Your task to perform on an android device: visit the assistant section in the google photos Image 0: 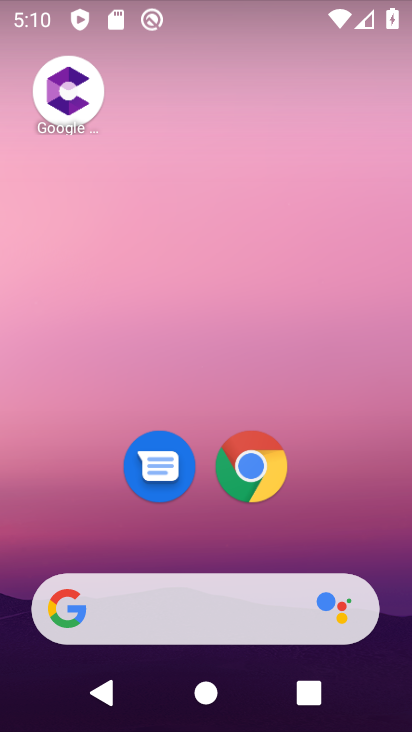
Step 0: drag from (338, 507) to (349, 124)
Your task to perform on an android device: visit the assistant section in the google photos Image 1: 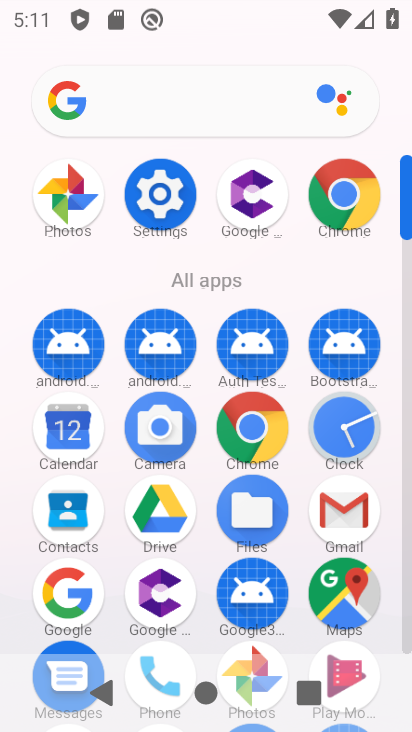
Step 1: click (250, 661)
Your task to perform on an android device: visit the assistant section in the google photos Image 2: 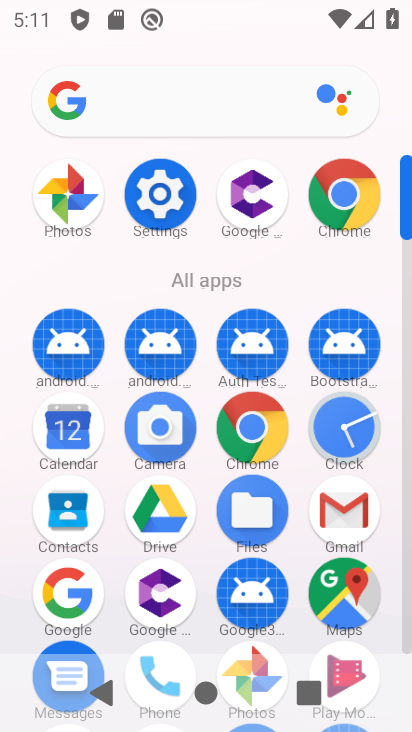
Step 2: drag from (207, 547) to (238, 382)
Your task to perform on an android device: visit the assistant section in the google photos Image 3: 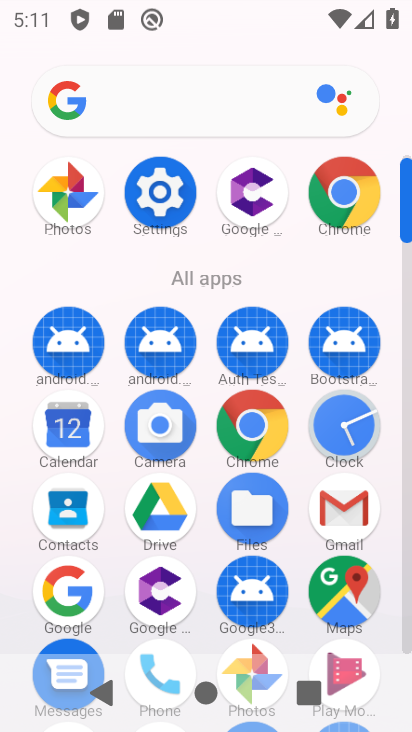
Step 3: drag from (206, 473) to (244, 278)
Your task to perform on an android device: visit the assistant section in the google photos Image 4: 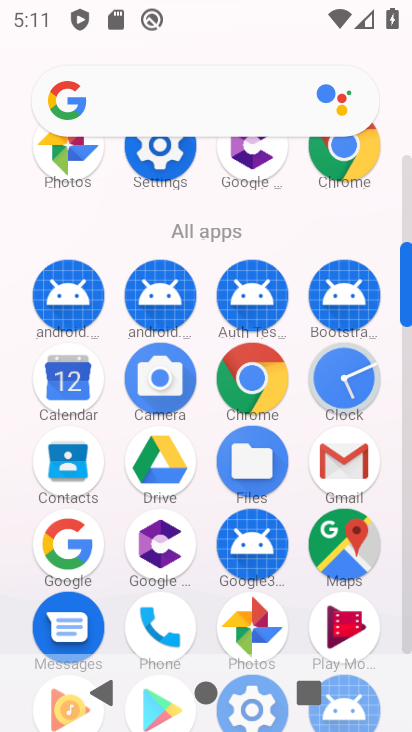
Step 4: click (79, 163)
Your task to perform on an android device: visit the assistant section in the google photos Image 5: 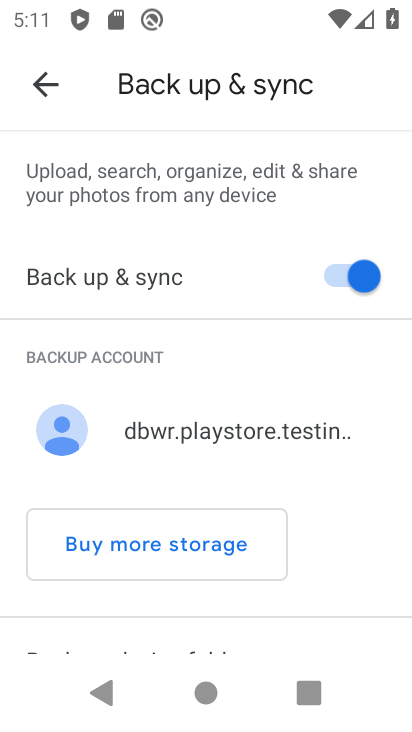
Step 5: press back button
Your task to perform on an android device: visit the assistant section in the google photos Image 6: 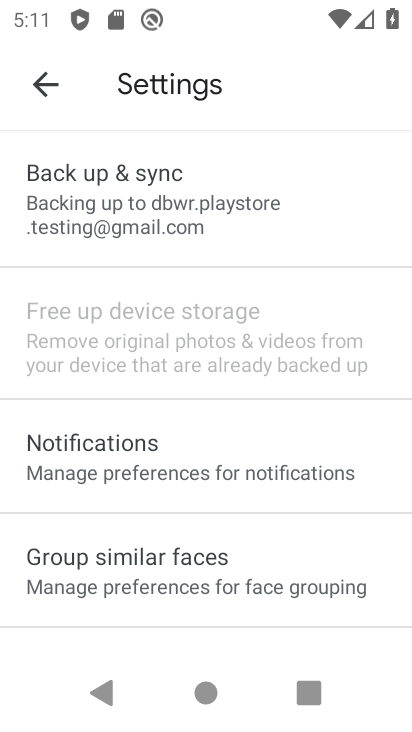
Step 6: press back button
Your task to perform on an android device: visit the assistant section in the google photos Image 7: 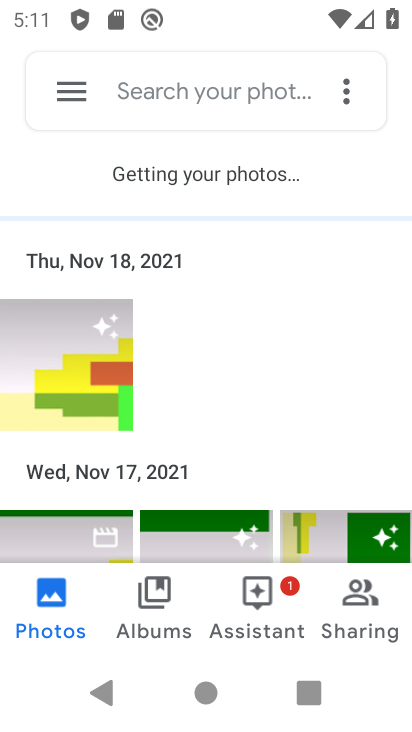
Step 7: click (262, 628)
Your task to perform on an android device: visit the assistant section in the google photos Image 8: 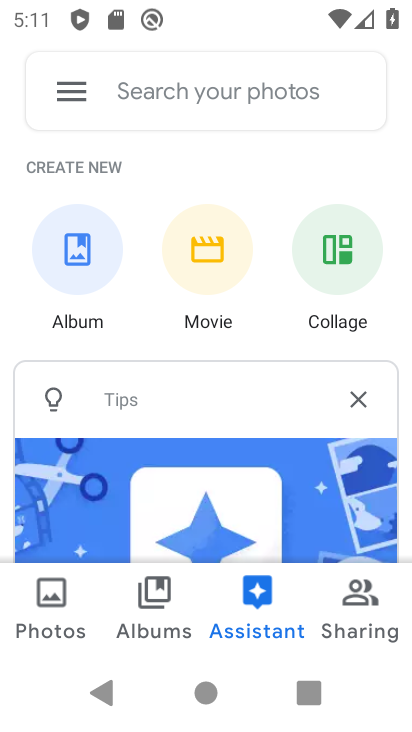
Step 8: task complete